Your task to perform on an android device: Search for sushi restaurants on Maps Image 0: 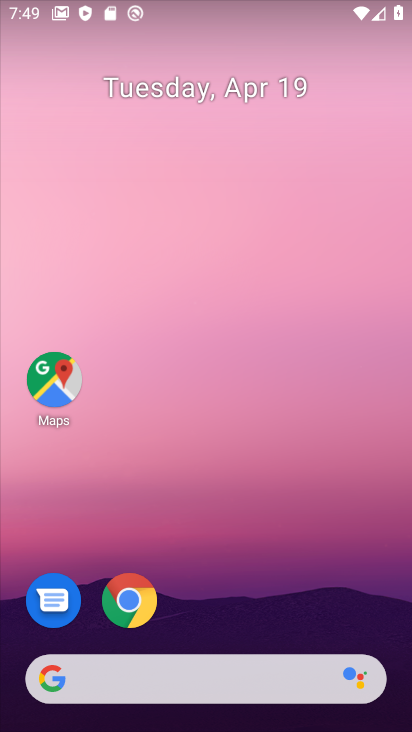
Step 0: drag from (299, 624) to (276, 96)
Your task to perform on an android device: Search for sushi restaurants on Maps Image 1: 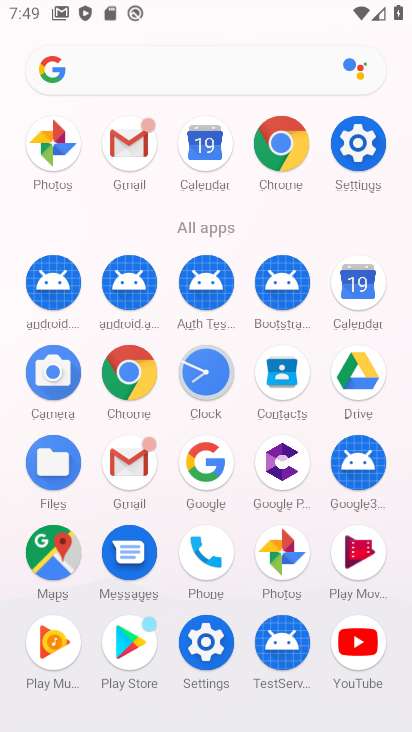
Step 1: click (68, 553)
Your task to perform on an android device: Search for sushi restaurants on Maps Image 2: 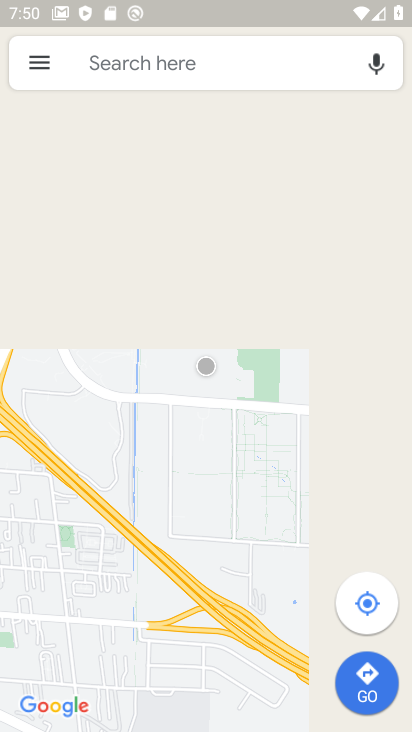
Step 2: click (220, 65)
Your task to perform on an android device: Search for sushi restaurants on Maps Image 3: 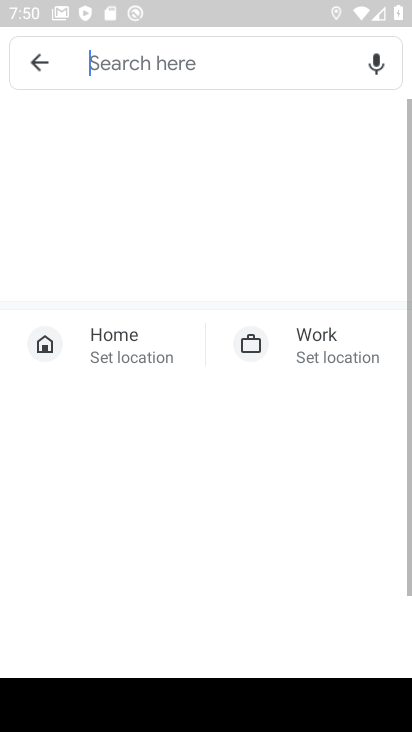
Step 3: click (92, 255)
Your task to perform on an android device: Search for sushi restaurants on Maps Image 4: 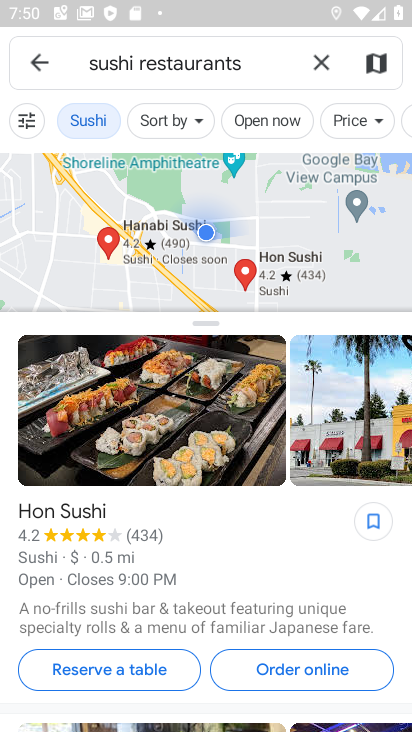
Step 4: task complete